Your task to perform on an android device: uninstall "Google Translate" Image 0: 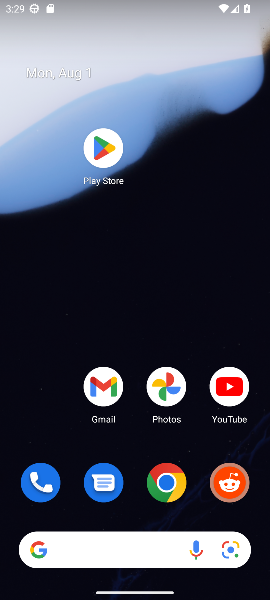
Step 0: press home button
Your task to perform on an android device: uninstall "Google Translate" Image 1: 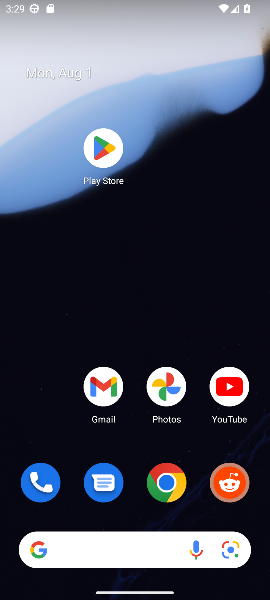
Step 1: click (103, 143)
Your task to perform on an android device: uninstall "Google Translate" Image 2: 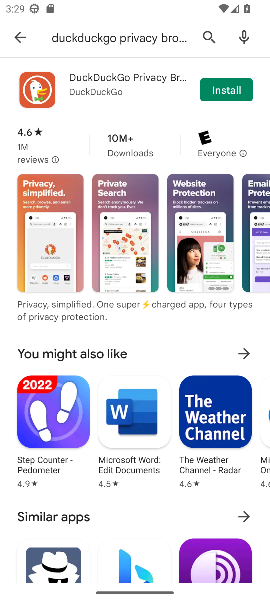
Step 2: click (206, 33)
Your task to perform on an android device: uninstall "Google Translate" Image 3: 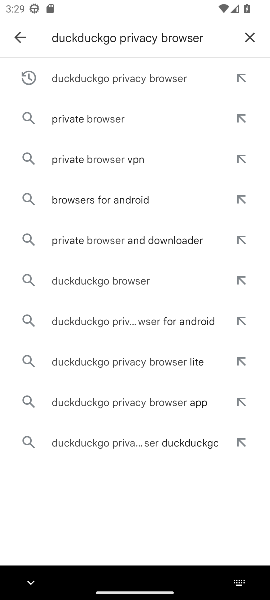
Step 3: click (253, 35)
Your task to perform on an android device: uninstall "Google Translate" Image 4: 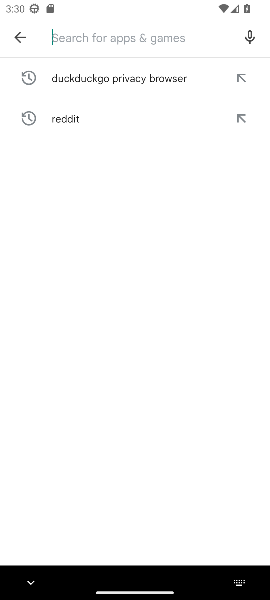
Step 4: type "Google Translate"
Your task to perform on an android device: uninstall "Google Translate" Image 5: 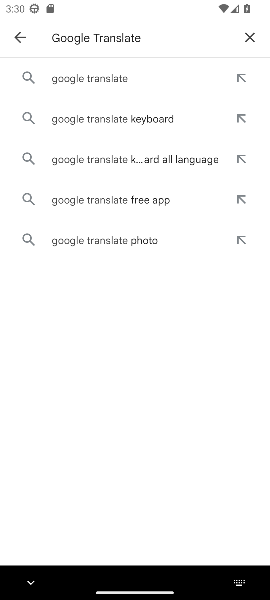
Step 5: click (94, 77)
Your task to perform on an android device: uninstall "Google Translate" Image 6: 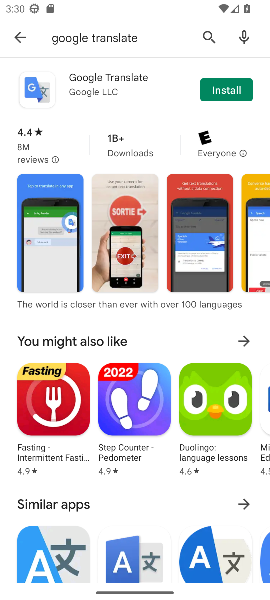
Step 6: task complete